Your task to perform on an android device: delete browsing data in the chrome app Image 0: 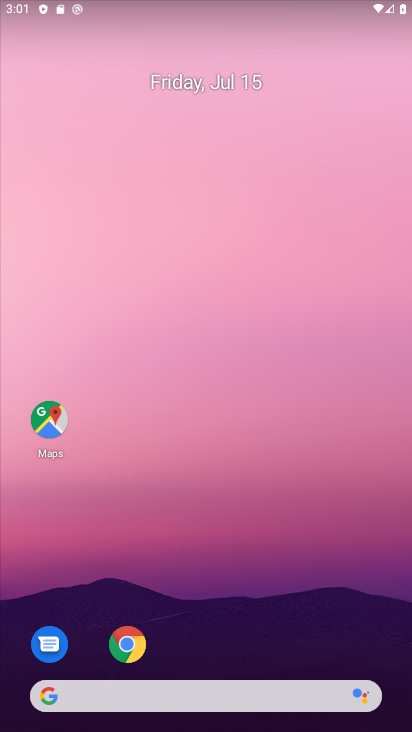
Step 0: drag from (172, 677) to (240, 5)
Your task to perform on an android device: delete browsing data in the chrome app Image 1: 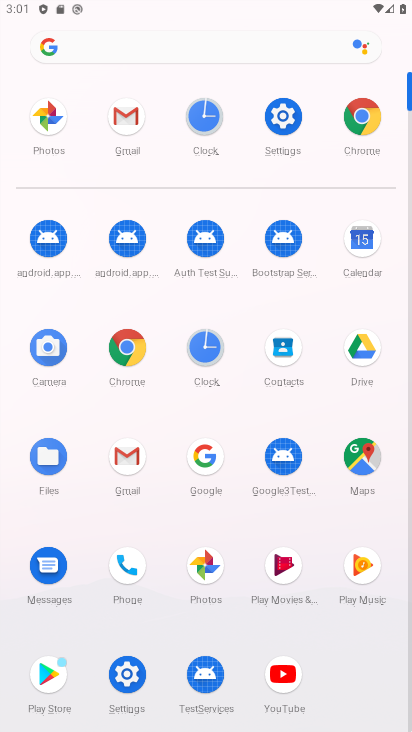
Step 1: click (121, 350)
Your task to perform on an android device: delete browsing data in the chrome app Image 2: 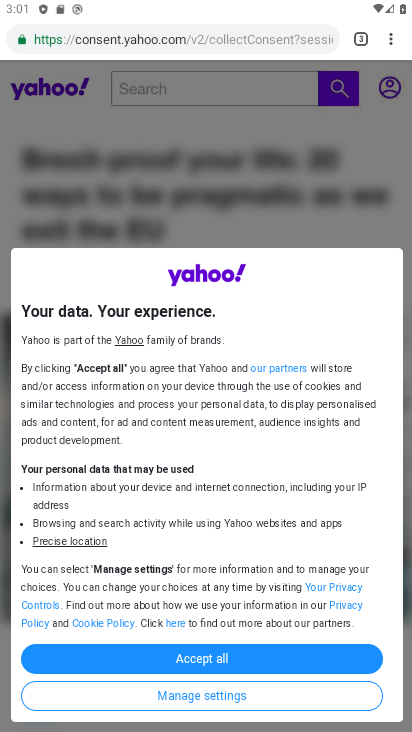
Step 2: drag from (390, 36) to (257, 475)
Your task to perform on an android device: delete browsing data in the chrome app Image 3: 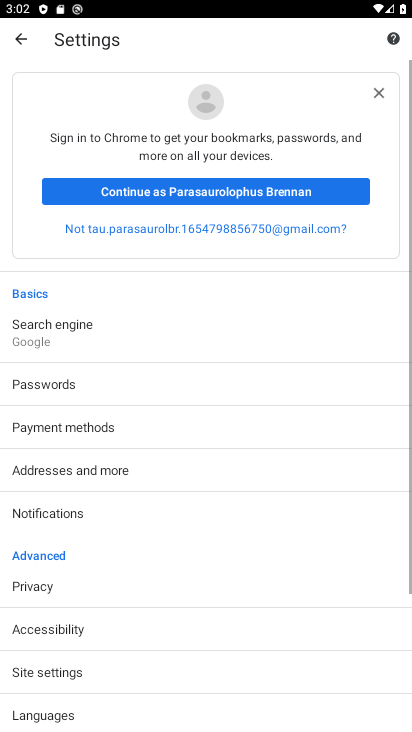
Step 3: drag from (219, 533) to (251, 100)
Your task to perform on an android device: delete browsing data in the chrome app Image 4: 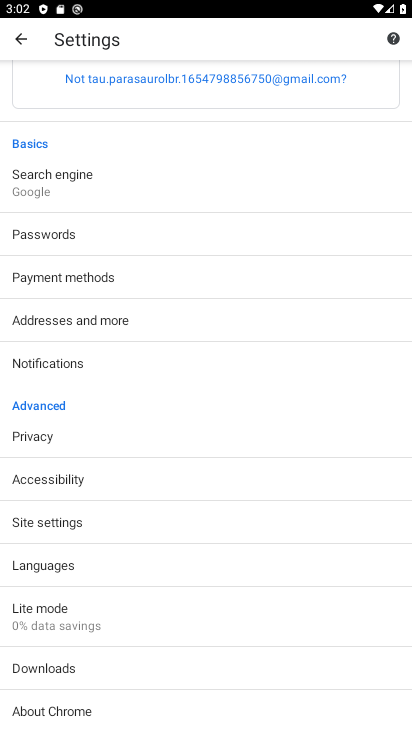
Step 4: click (70, 440)
Your task to perform on an android device: delete browsing data in the chrome app Image 5: 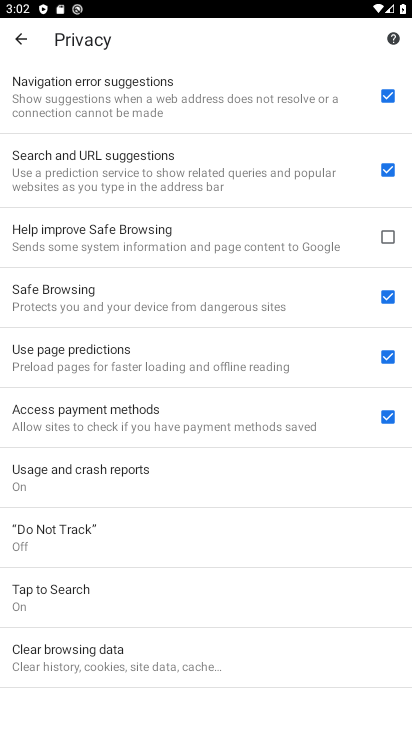
Step 5: click (80, 657)
Your task to perform on an android device: delete browsing data in the chrome app Image 6: 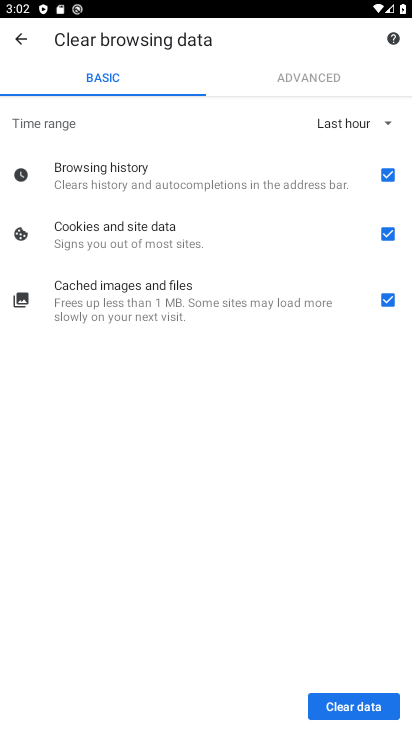
Step 6: click (365, 702)
Your task to perform on an android device: delete browsing data in the chrome app Image 7: 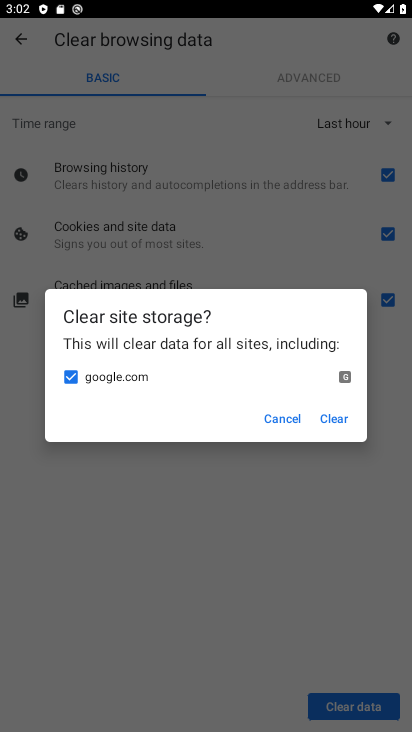
Step 7: click (333, 422)
Your task to perform on an android device: delete browsing data in the chrome app Image 8: 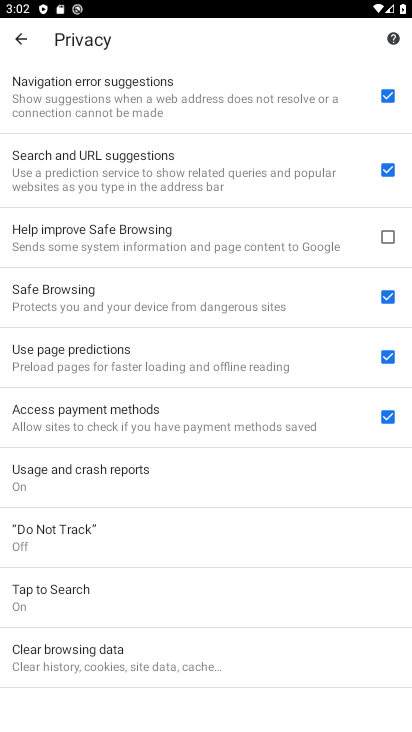
Step 8: task complete